Your task to perform on an android device: change alarm snooze length Image 0: 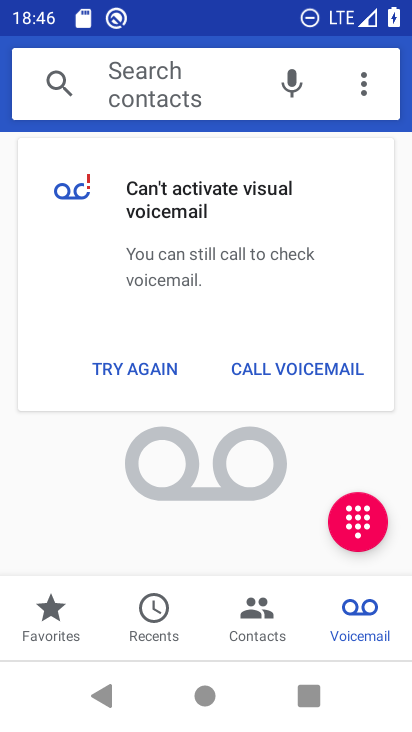
Step 0: press home button
Your task to perform on an android device: change alarm snooze length Image 1: 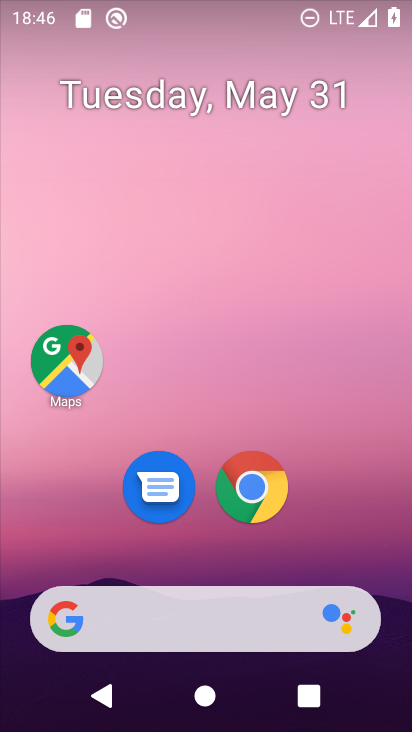
Step 1: drag from (328, 537) to (230, 52)
Your task to perform on an android device: change alarm snooze length Image 2: 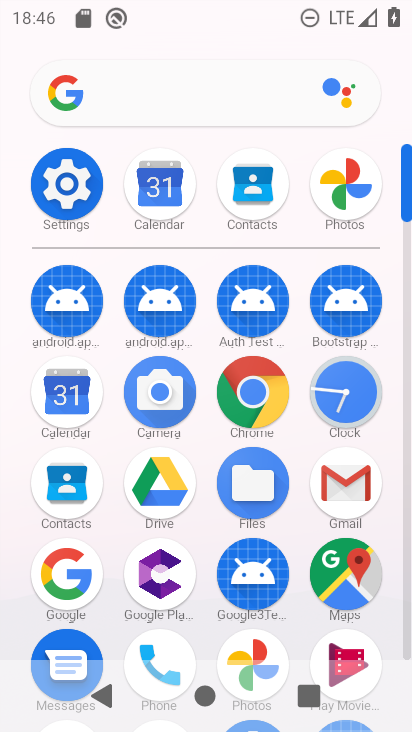
Step 2: click (355, 395)
Your task to perform on an android device: change alarm snooze length Image 3: 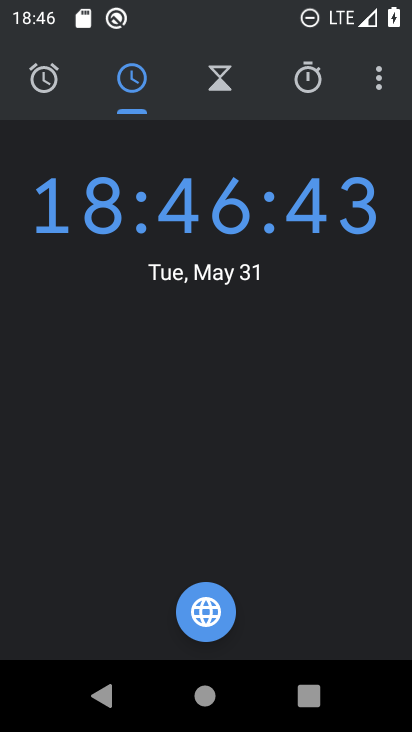
Step 3: click (380, 75)
Your task to perform on an android device: change alarm snooze length Image 4: 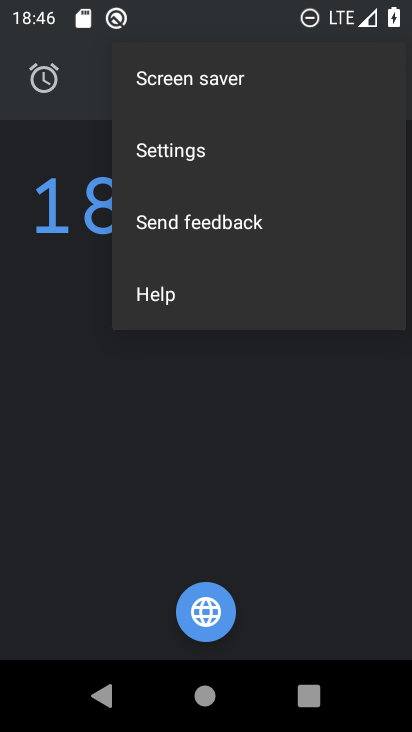
Step 4: click (178, 153)
Your task to perform on an android device: change alarm snooze length Image 5: 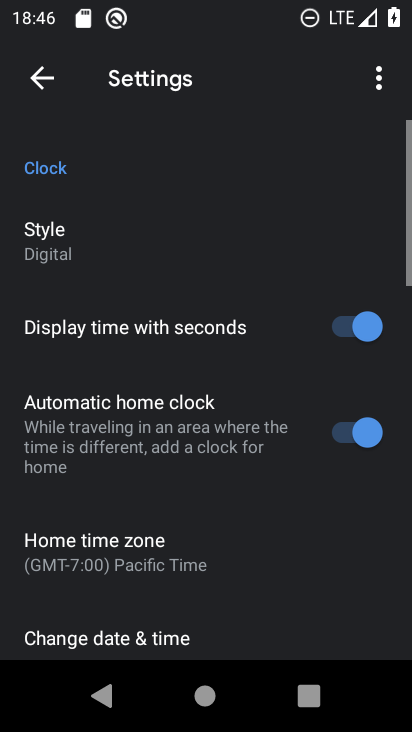
Step 5: drag from (270, 502) to (215, 167)
Your task to perform on an android device: change alarm snooze length Image 6: 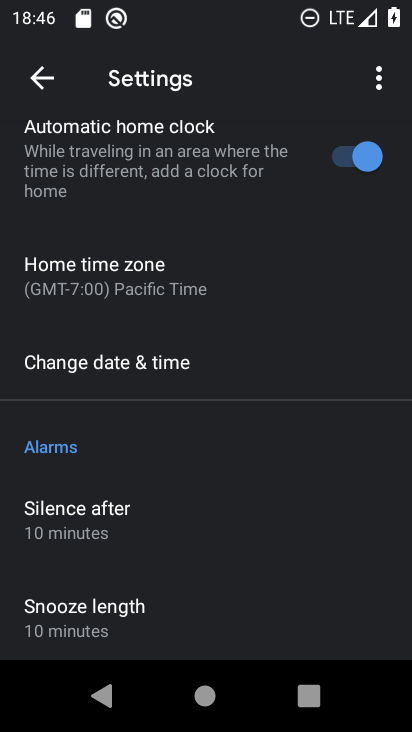
Step 6: drag from (326, 508) to (296, 337)
Your task to perform on an android device: change alarm snooze length Image 7: 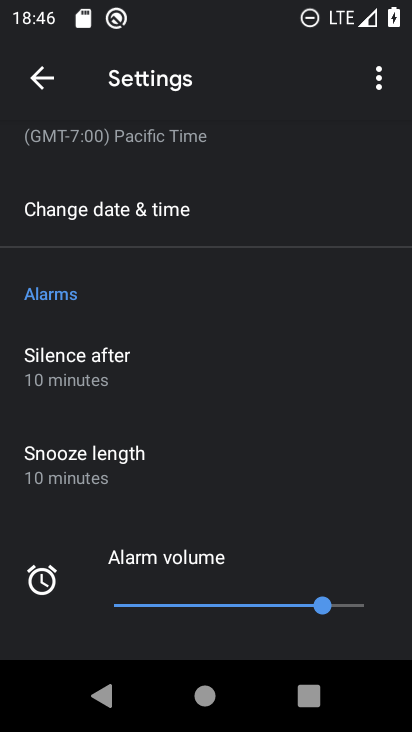
Step 7: click (69, 463)
Your task to perform on an android device: change alarm snooze length Image 8: 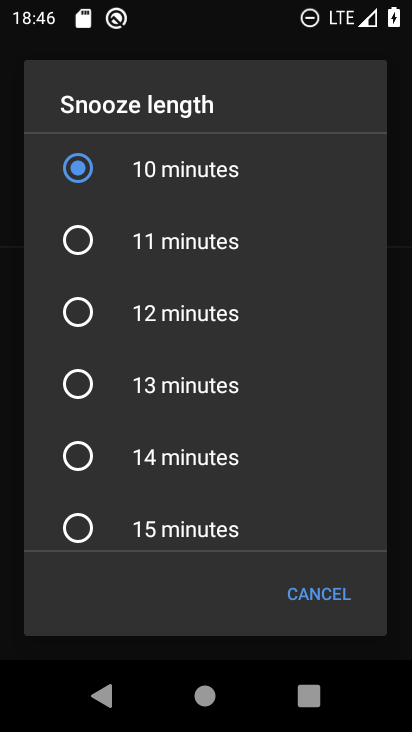
Step 8: click (85, 311)
Your task to perform on an android device: change alarm snooze length Image 9: 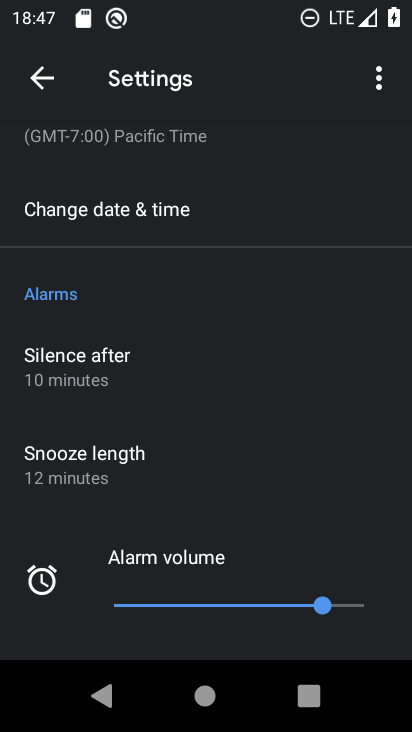
Step 9: task complete